Your task to perform on an android device: Open the calendar and show me this week's events? Image 0: 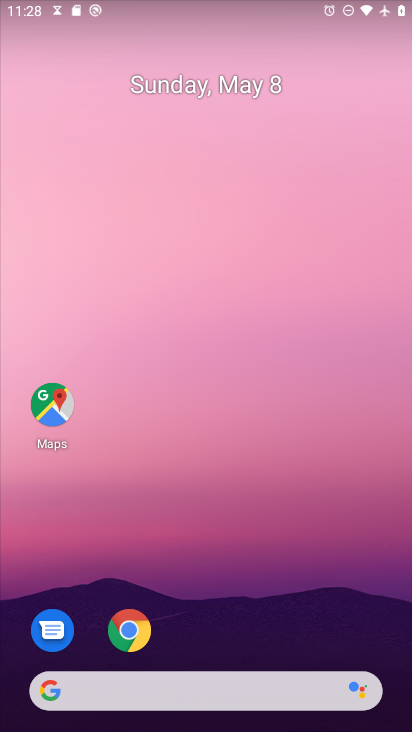
Step 0: press home button
Your task to perform on an android device: Open the calendar and show me this week's events? Image 1: 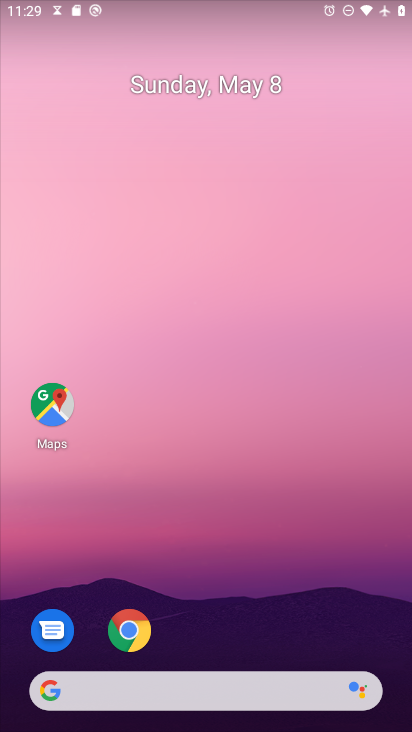
Step 1: drag from (158, 687) to (394, 71)
Your task to perform on an android device: Open the calendar and show me this week's events? Image 2: 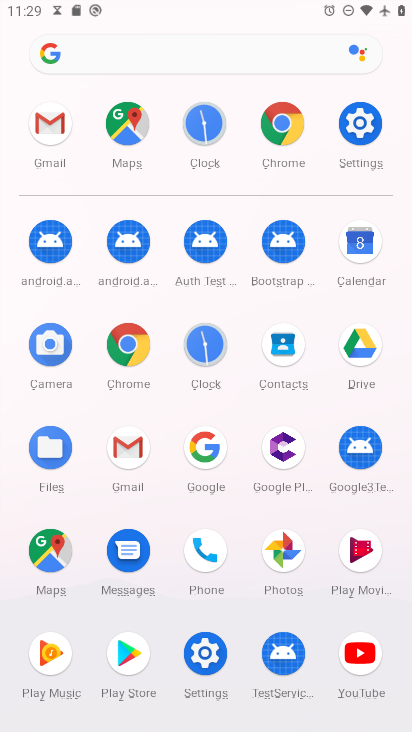
Step 2: click (368, 248)
Your task to perform on an android device: Open the calendar and show me this week's events? Image 3: 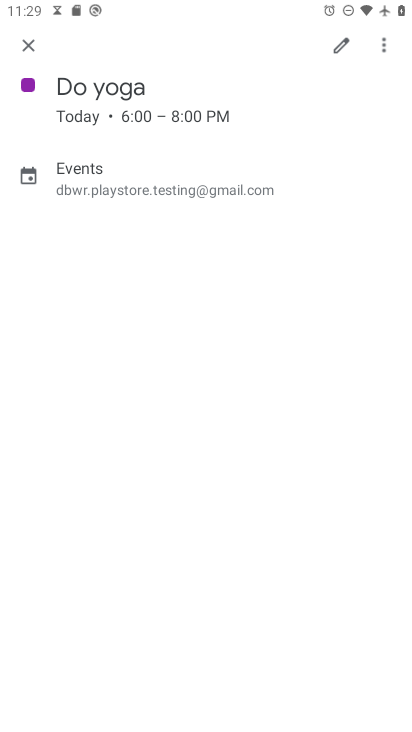
Step 3: click (30, 45)
Your task to perform on an android device: Open the calendar and show me this week's events? Image 4: 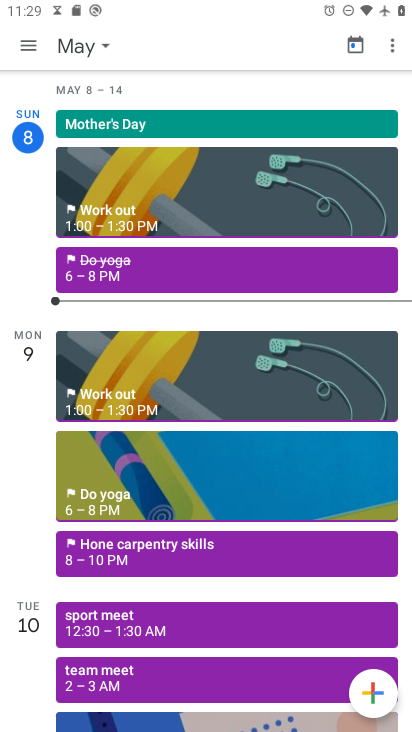
Step 4: click (76, 49)
Your task to perform on an android device: Open the calendar and show me this week's events? Image 5: 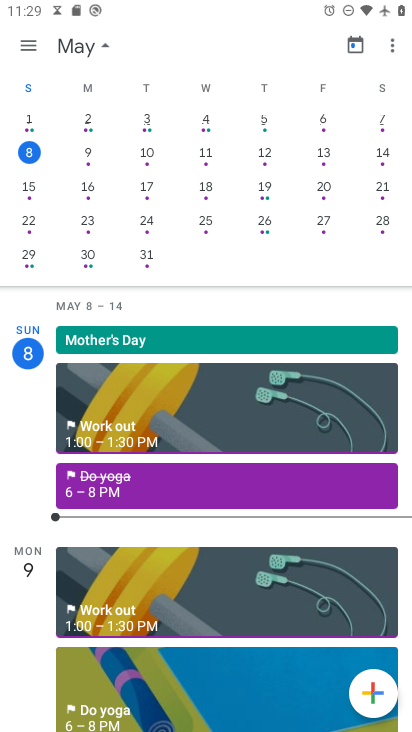
Step 5: click (22, 43)
Your task to perform on an android device: Open the calendar and show me this week's events? Image 6: 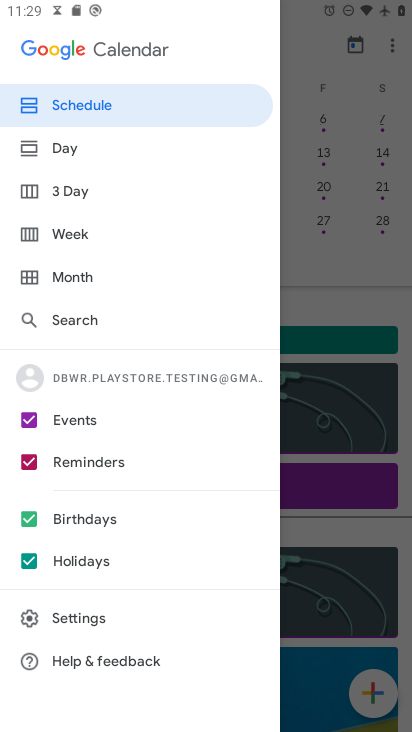
Step 6: click (82, 234)
Your task to perform on an android device: Open the calendar and show me this week's events? Image 7: 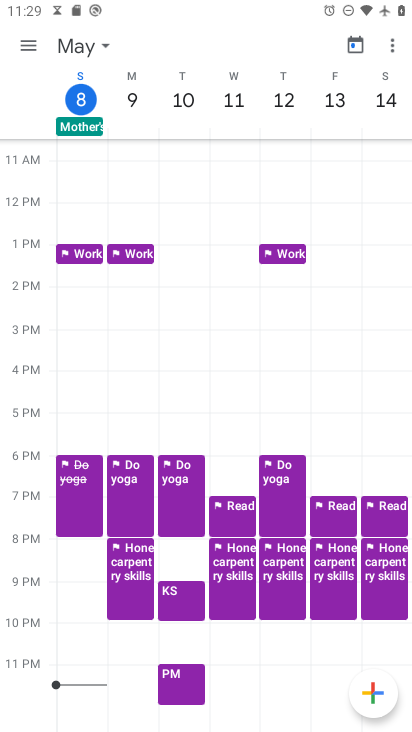
Step 7: click (33, 42)
Your task to perform on an android device: Open the calendar and show me this week's events? Image 8: 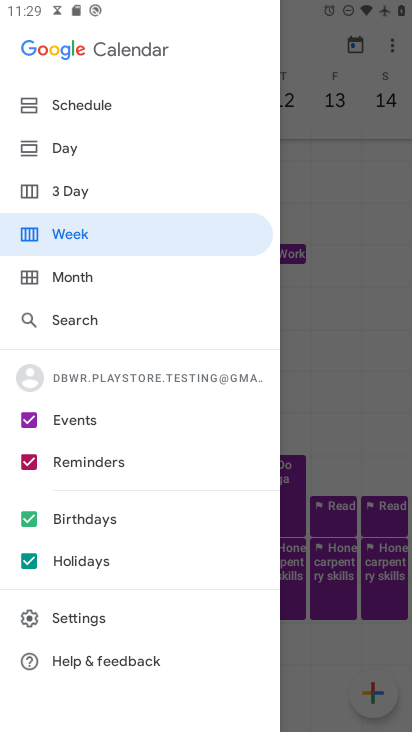
Step 8: click (101, 107)
Your task to perform on an android device: Open the calendar and show me this week's events? Image 9: 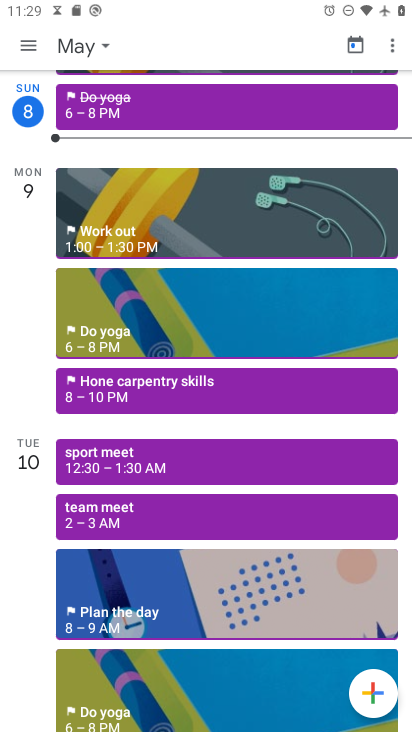
Step 9: click (129, 109)
Your task to perform on an android device: Open the calendar and show me this week's events? Image 10: 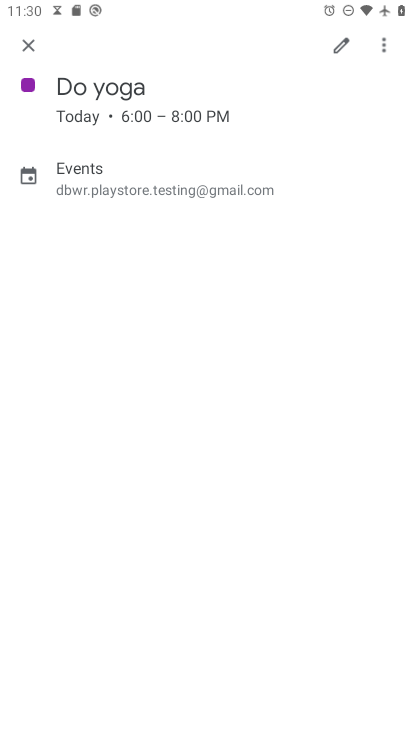
Step 10: task complete